Your task to perform on an android device: Open Google Chrome Image 0: 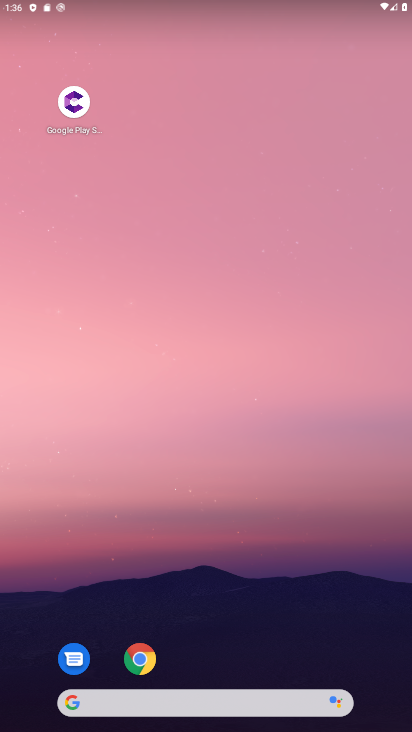
Step 0: click (145, 654)
Your task to perform on an android device: Open Google Chrome Image 1: 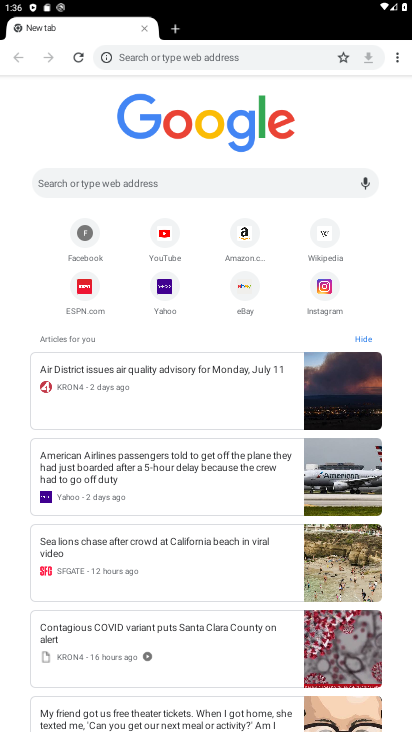
Step 1: task complete